Your task to perform on an android device: choose inbox layout in the gmail app Image 0: 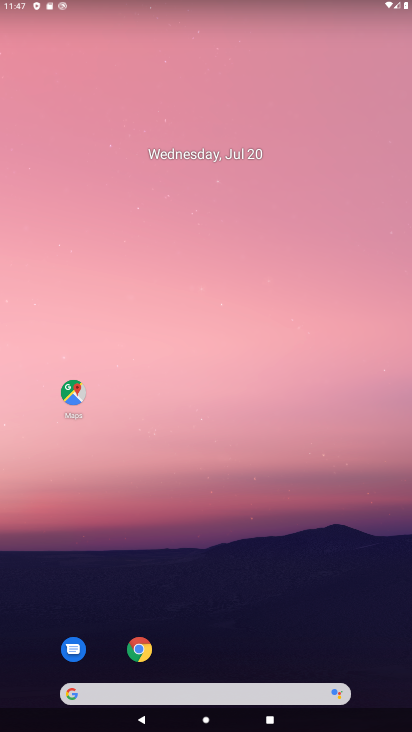
Step 0: press home button
Your task to perform on an android device: choose inbox layout in the gmail app Image 1: 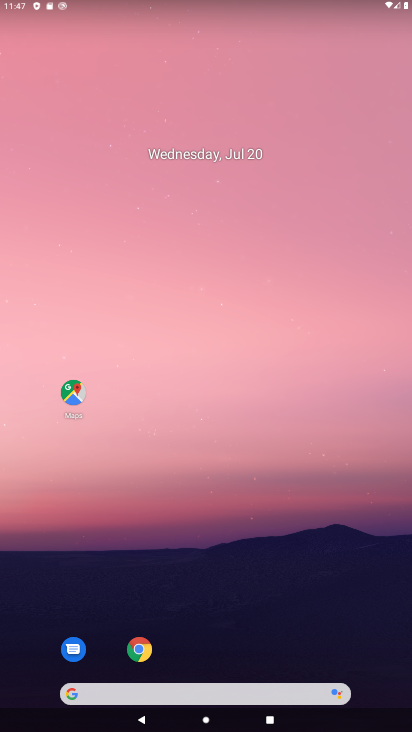
Step 1: drag from (318, 638) to (309, 108)
Your task to perform on an android device: choose inbox layout in the gmail app Image 2: 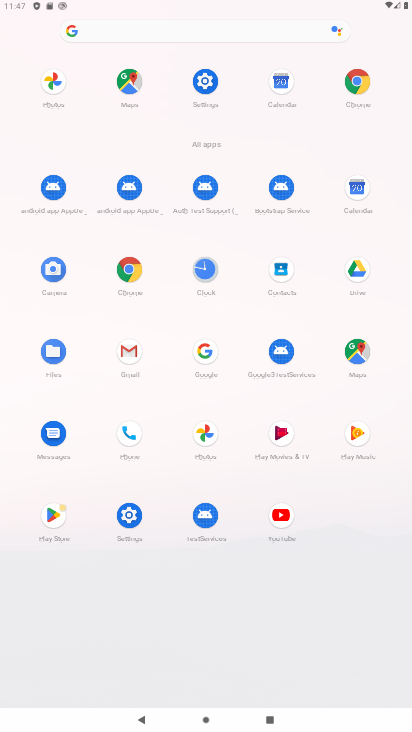
Step 2: click (118, 346)
Your task to perform on an android device: choose inbox layout in the gmail app Image 3: 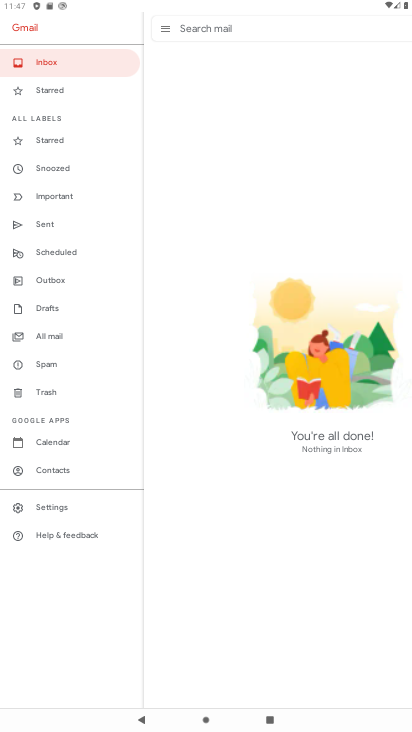
Step 3: click (58, 502)
Your task to perform on an android device: choose inbox layout in the gmail app Image 4: 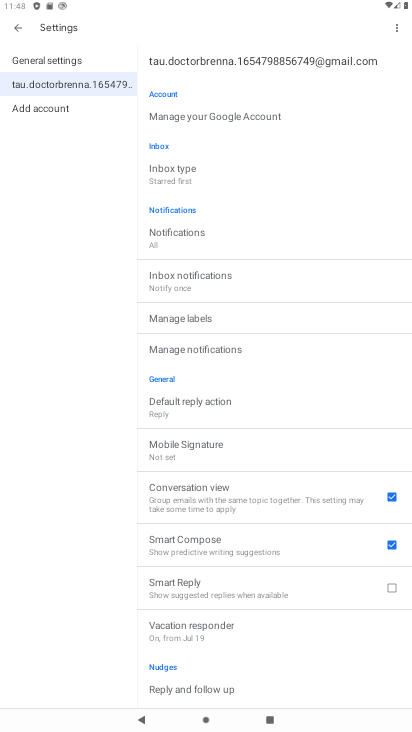
Step 4: click (185, 183)
Your task to perform on an android device: choose inbox layout in the gmail app Image 5: 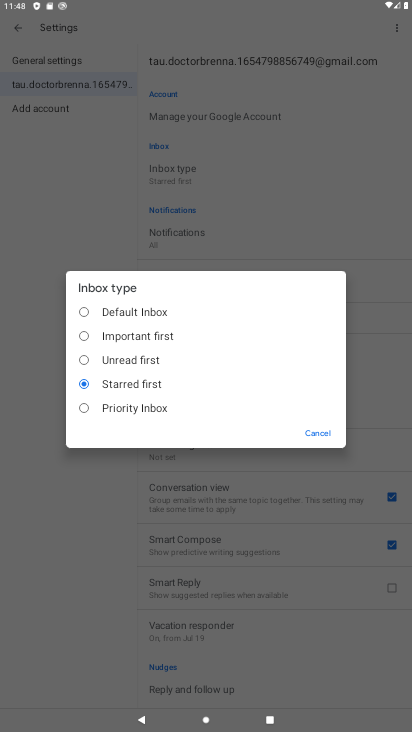
Step 5: click (104, 338)
Your task to perform on an android device: choose inbox layout in the gmail app Image 6: 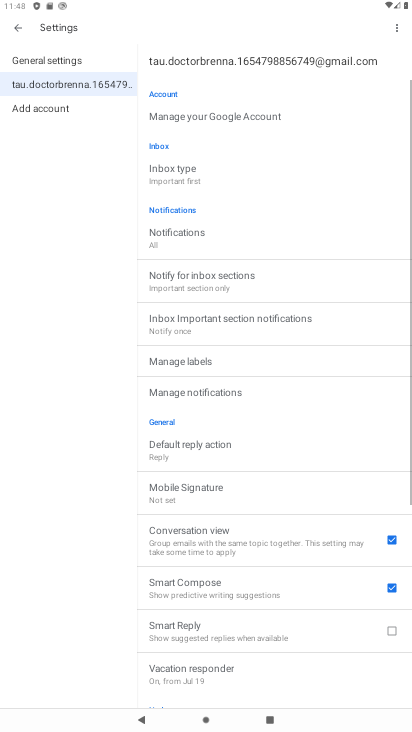
Step 6: task complete